Your task to perform on an android device: Go to Yahoo.com Image 0: 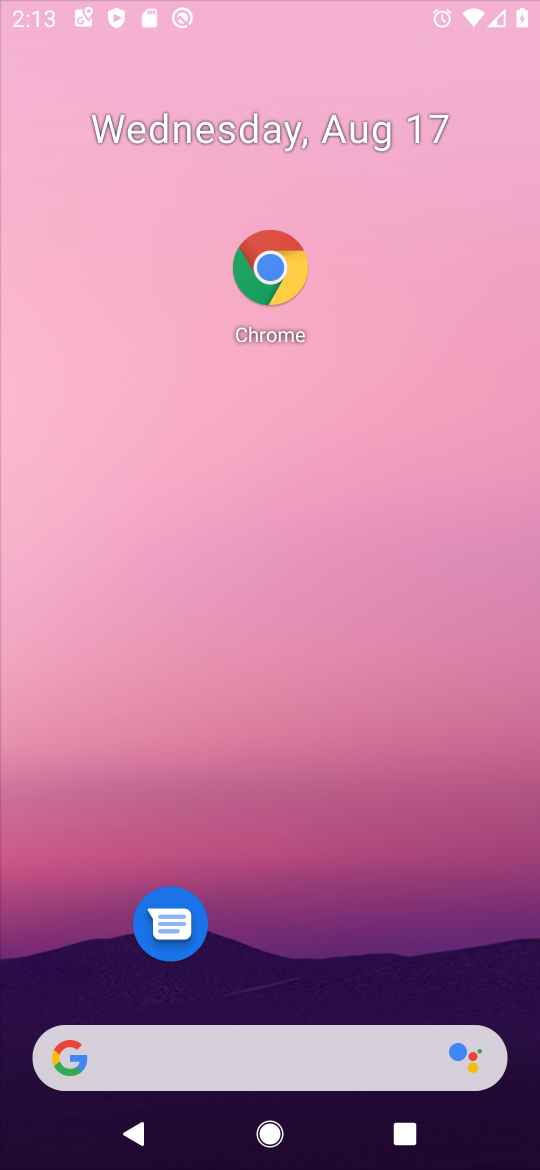
Step 0: press home button
Your task to perform on an android device: Go to Yahoo.com Image 1: 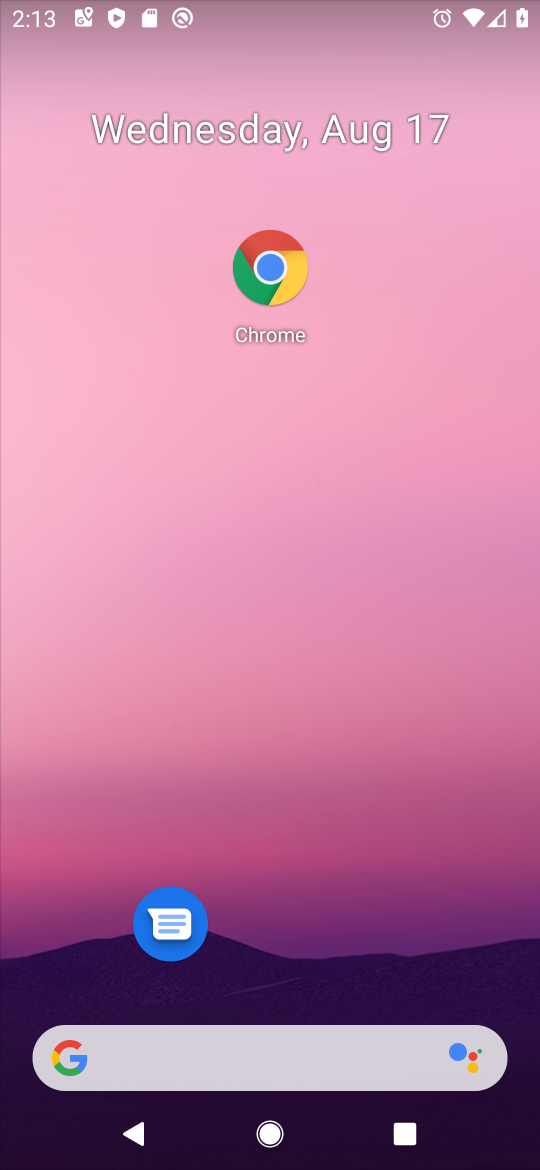
Step 1: click (264, 290)
Your task to perform on an android device: Go to Yahoo.com Image 2: 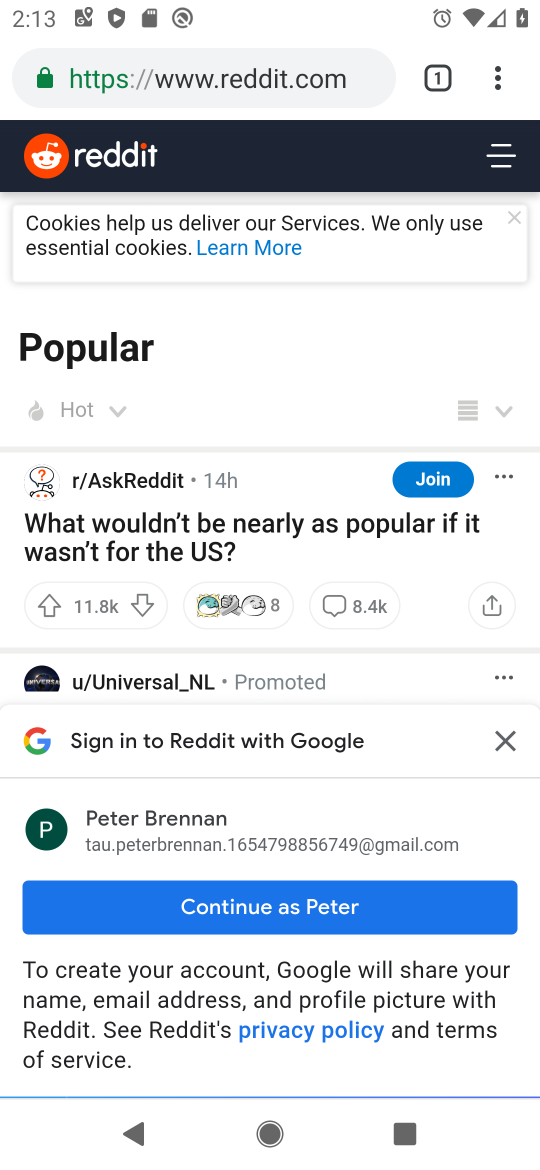
Step 2: click (456, 67)
Your task to perform on an android device: Go to Yahoo.com Image 3: 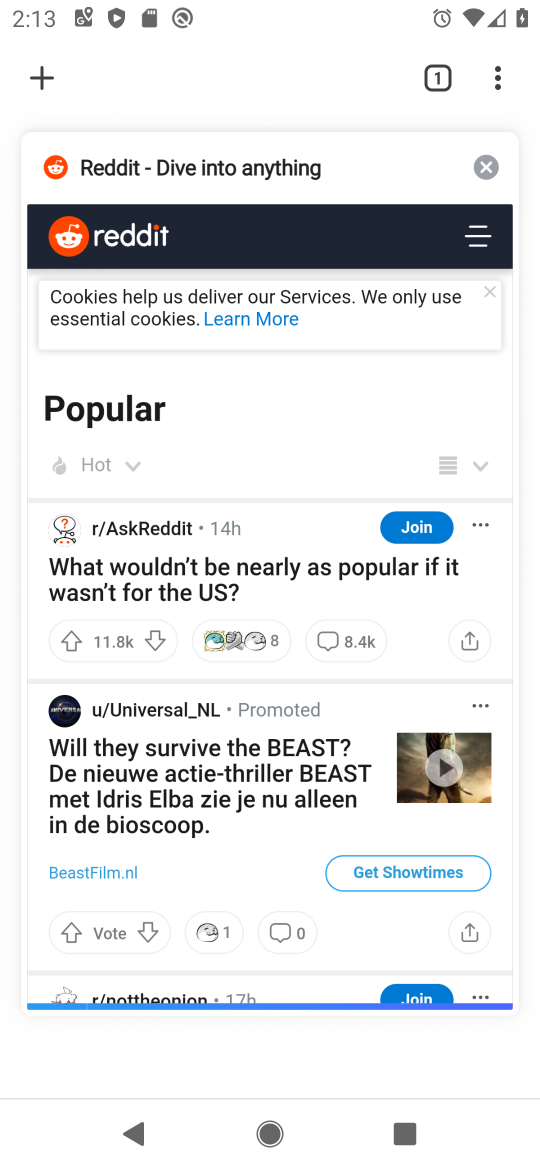
Step 3: click (27, 72)
Your task to perform on an android device: Go to Yahoo.com Image 4: 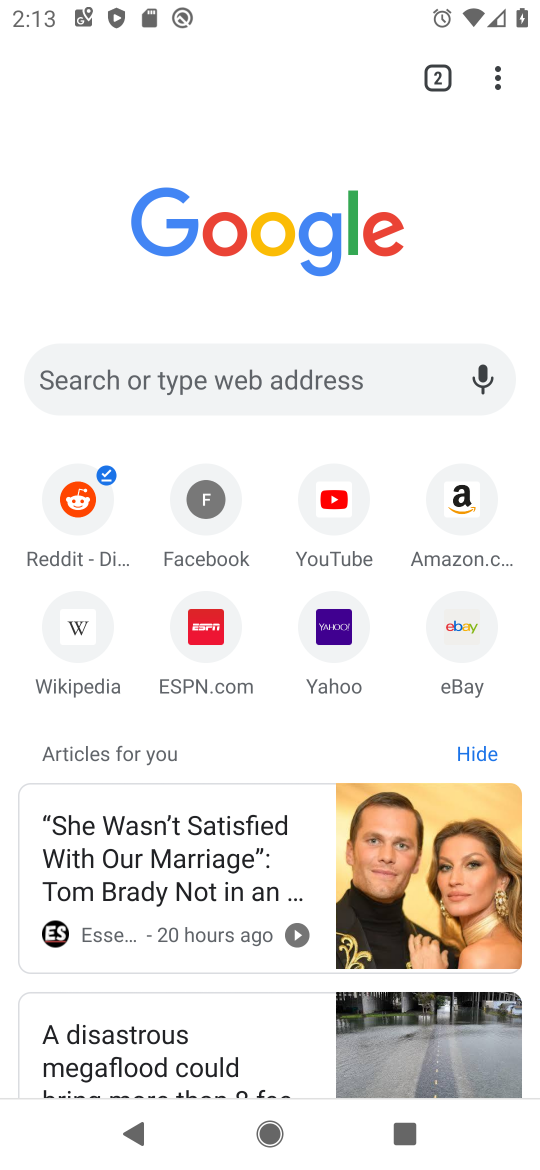
Step 4: click (363, 653)
Your task to perform on an android device: Go to Yahoo.com Image 5: 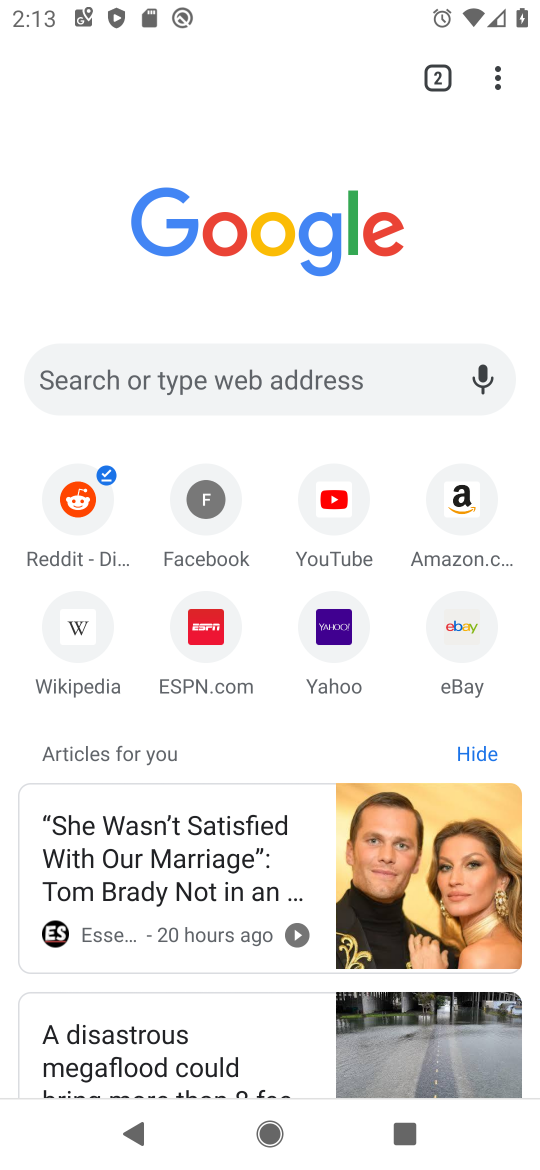
Step 5: click (363, 653)
Your task to perform on an android device: Go to Yahoo.com Image 6: 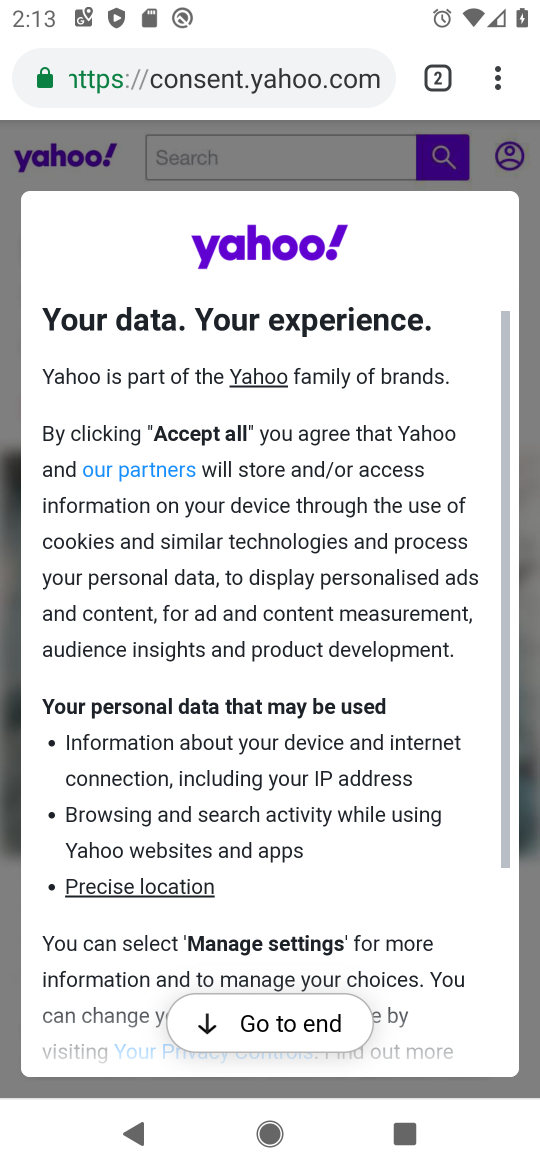
Step 6: click (257, 1032)
Your task to perform on an android device: Go to Yahoo.com Image 7: 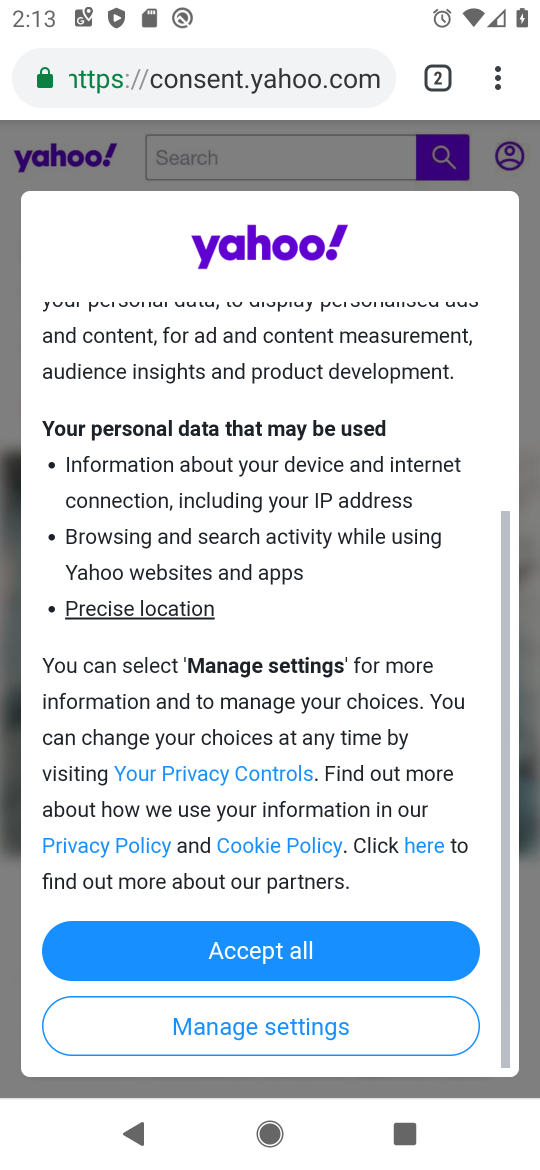
Step 7: click (269, 952)
Your task to perform on an android device: Go to Yahoo.com Image 8: 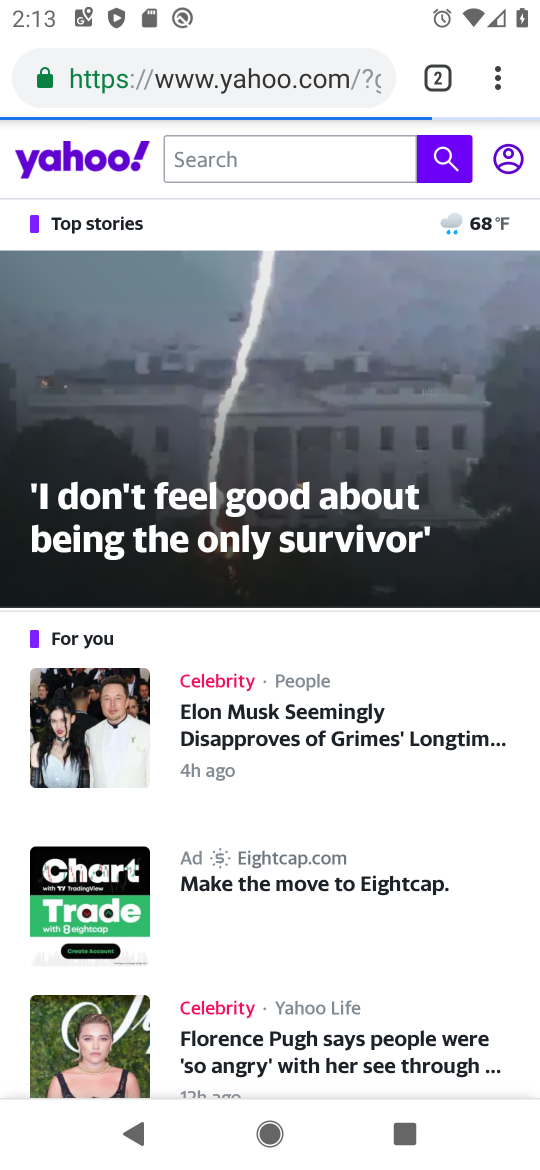
Step 8: task complete